Your task to perform on an android device: remove spam from my inbox in the gmail app Image 0: 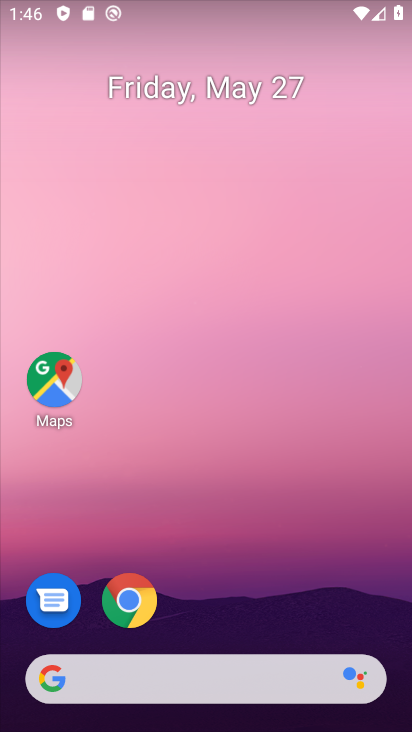
Step 0: click (132, 27)
Your task to perform on an android device: remove spam from my inbox in the gmail app Image 1: 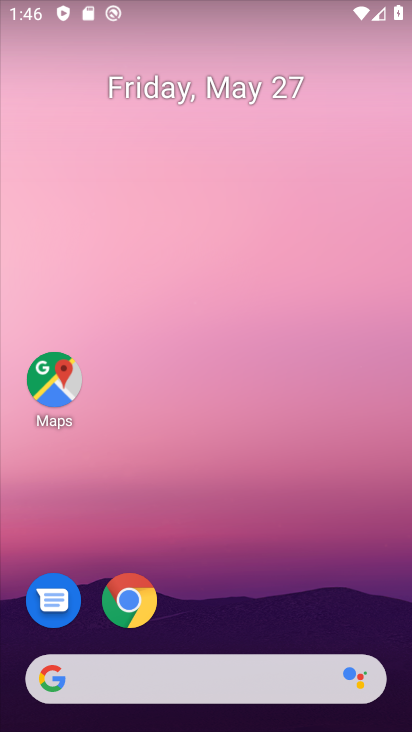
Step 1: drag from (199, 530) to (124, 46)
Your task to perform on an android device: remove spam from my inbox in the gmail app Image 2: 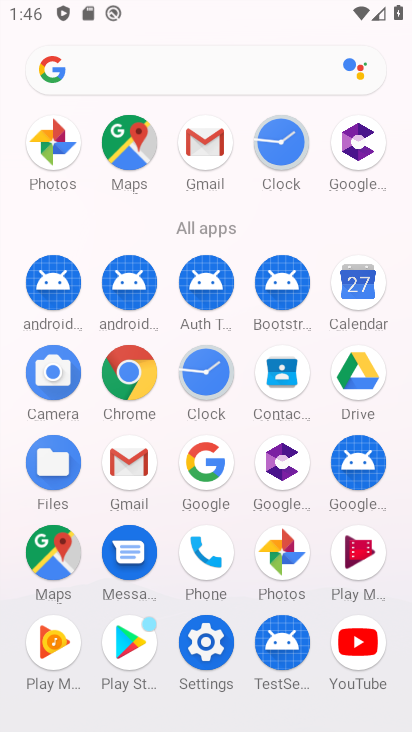
Step 2: click (127, 456)
Your task to perform on an android device: remove spam from my inbox in the gmail app Image 3: 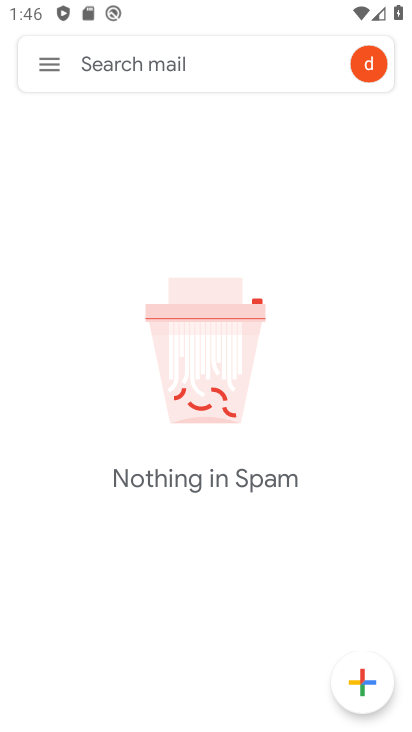
Step 3: click (56, 62)
Your task to perform on an android device: remove spam from my inbox in the gmail app Image 4: 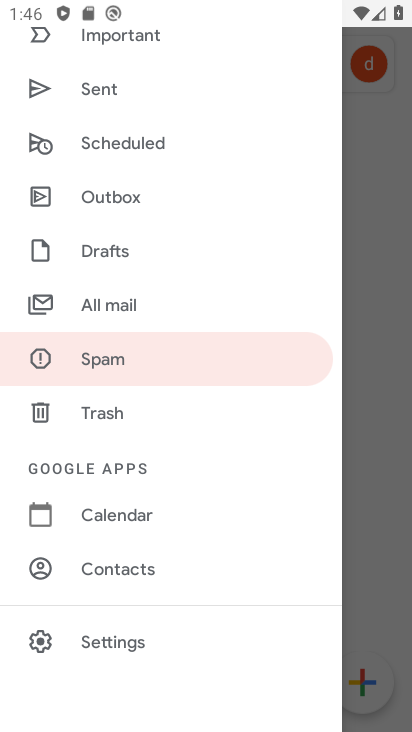
Step 4: click (154, 351)
Your task to perform on an android device: remove spam from my inbox in the gmail app Image 5: 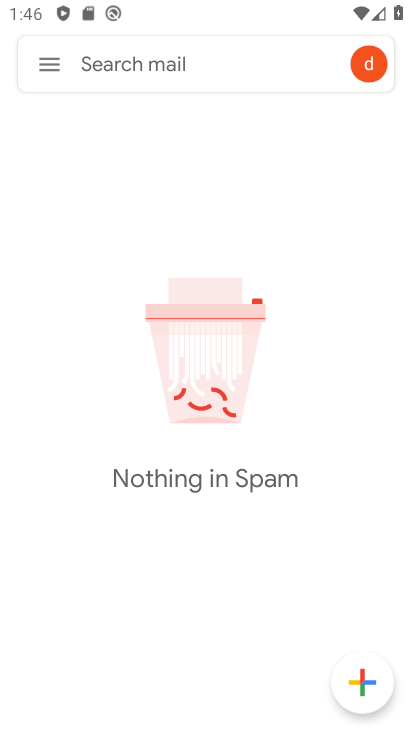
Step 5: task complete